Your task to perform on an android device: toggle javascript in the chrome app Image 0: 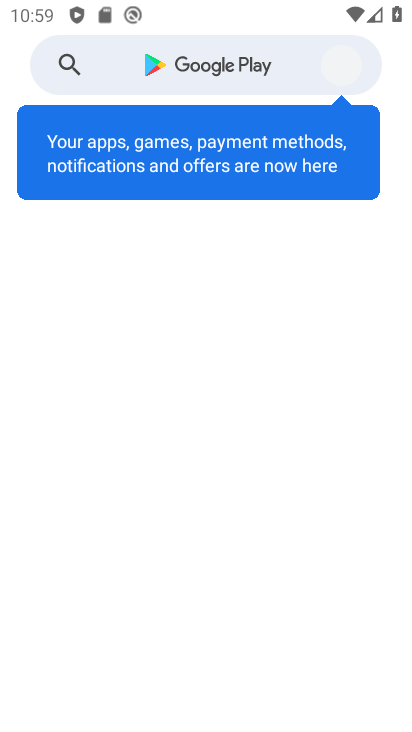
Step 0: press back button
Your task to perform on an android device: toggle javascript in the chrome app Image 1: 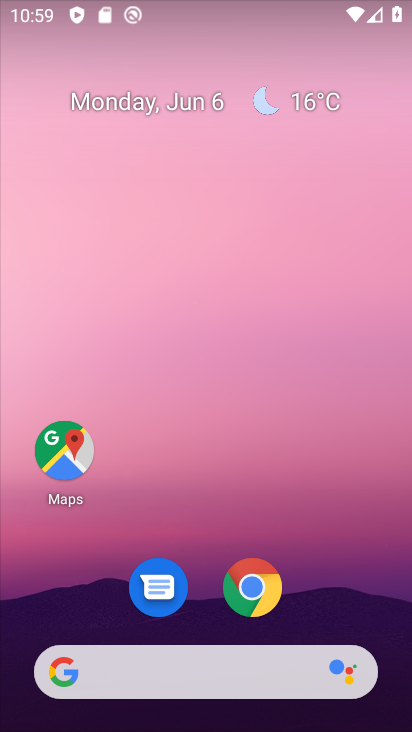
Step 1: drag from (365, 601) to (276, 15)
Your task to perform on an android device: toggle javascript in the chrome app Image 2: 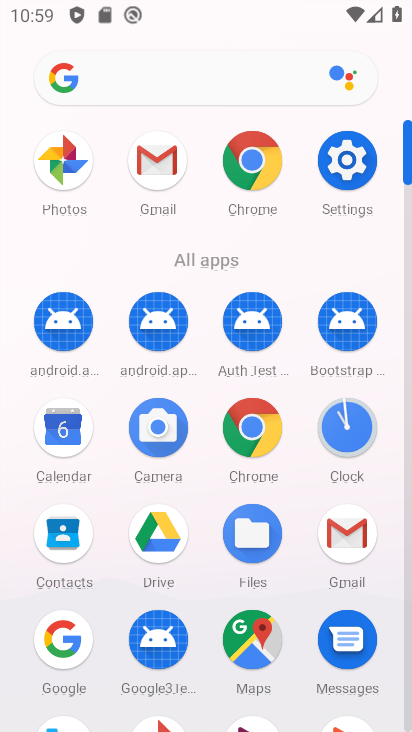
Step 2: drag from (13, 565) to (13, 225)
Your task to perform on an android device: toggle javascript in the chrome app Image 3: 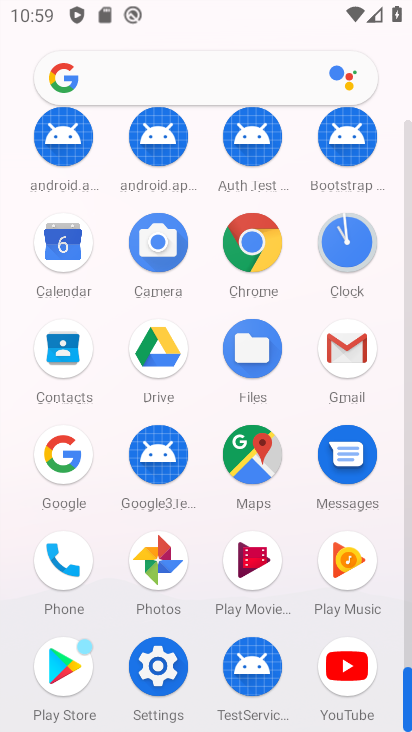
Step 3: click (253, 237)
Your task to perform on an android device: toggle javascript in the chrome app Image 4: 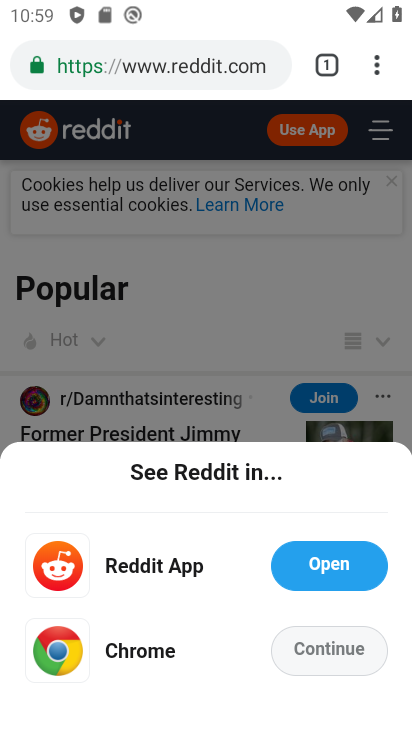
Step 4: drag from (373, 57) to (160, 637)
Your task to perform on an android device: toggle javascript in the chrome app Image 5: 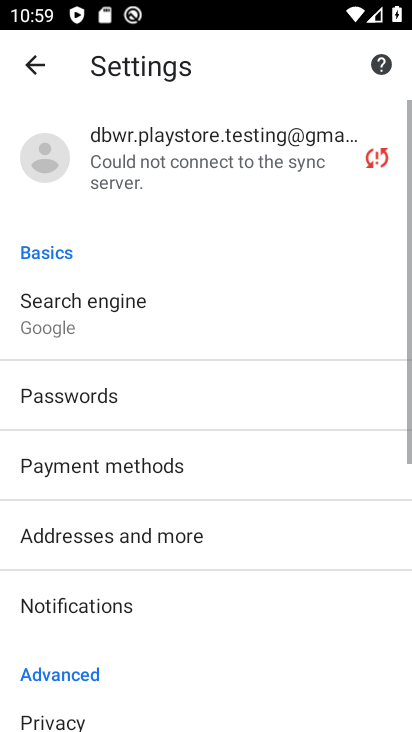
Step 5: drag from (239, 630) to (285, 199)
Your task to perform on an android device: toggle javascript in the chrome app Image 6: 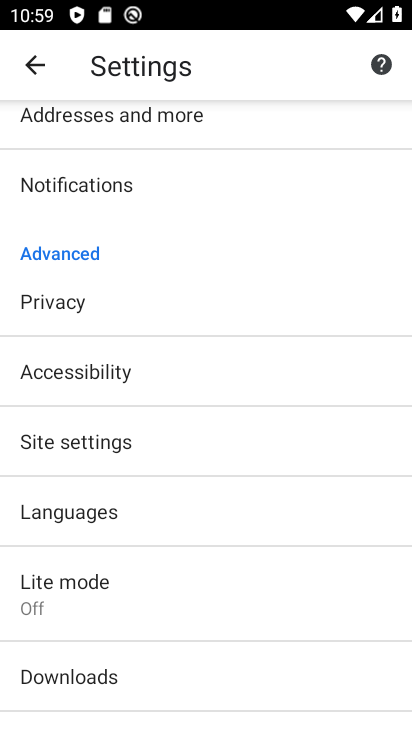
Step 6: click (149, 454)
Your task to perform on an android device: toggle javascript in the chrome app Image 7: 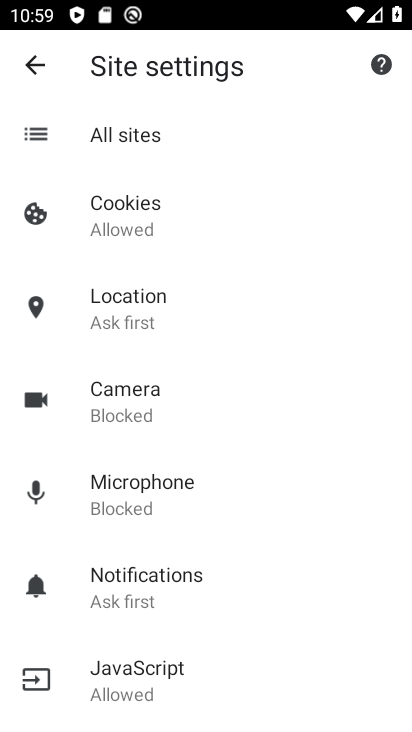
Step 7: click (127, 654)
Your task to perform on an android device: toggle javascript in the chrome app Image 8: 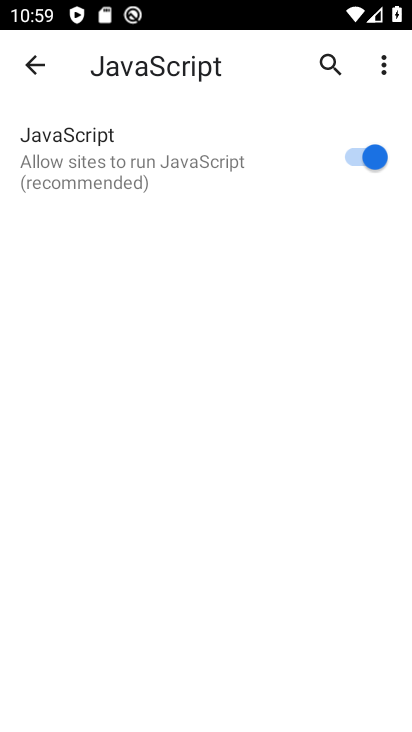
Step 8: click (368, 156)
Your task to perform on an android device: toggle javascript in the chrome app Image 9: 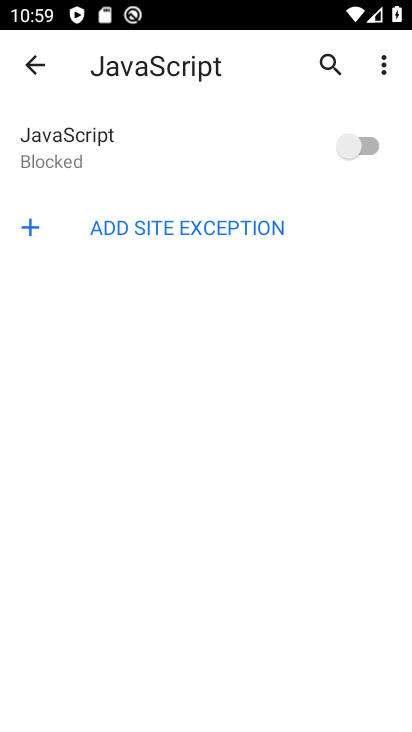
Step 9: task complete